Your task to perform on an android device: open sync settings in chrome Image 0: 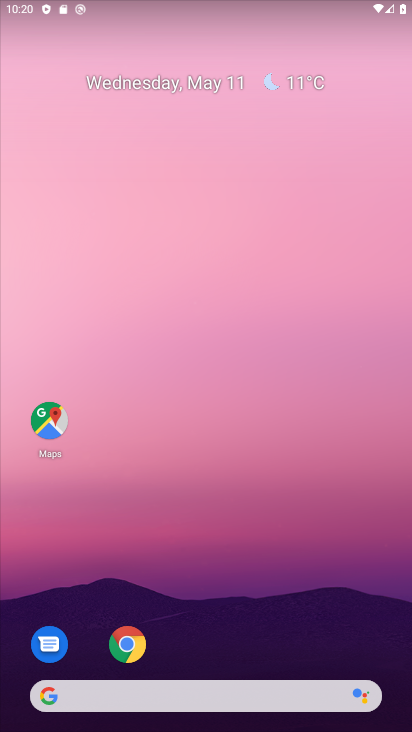
Step 0: click (126, 649)
Your task to perform on an android device: open sync settings in chrome Image 1: 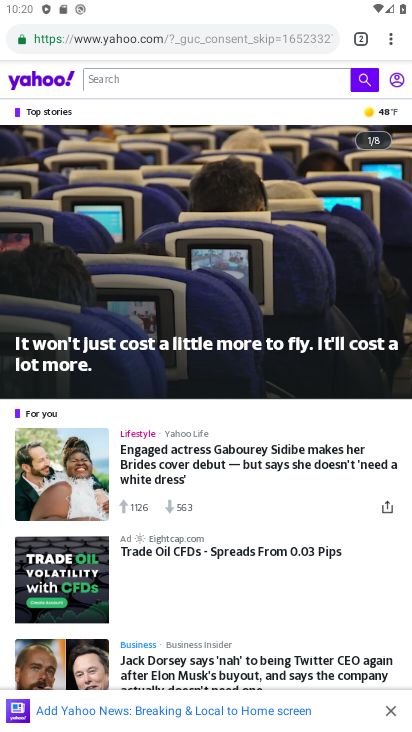
Step 1: drag from (391, 40) to (243, 475)
Your task to perform on an android device: open sync settings in chrome Image 2: 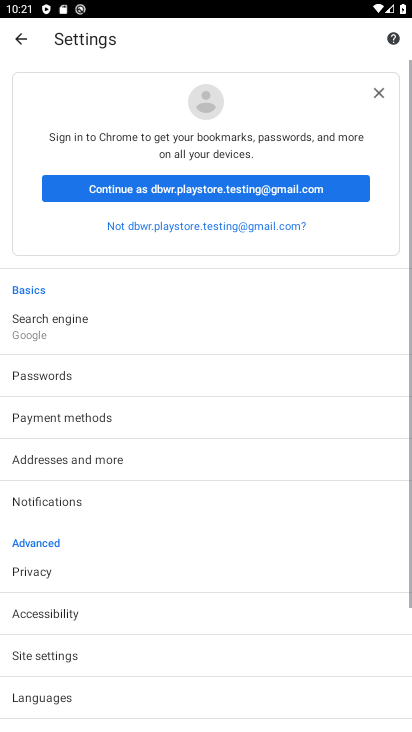
Step 2: click (147, 183)
Your task to perform on an android device: open sync settings in chrome Image 3: 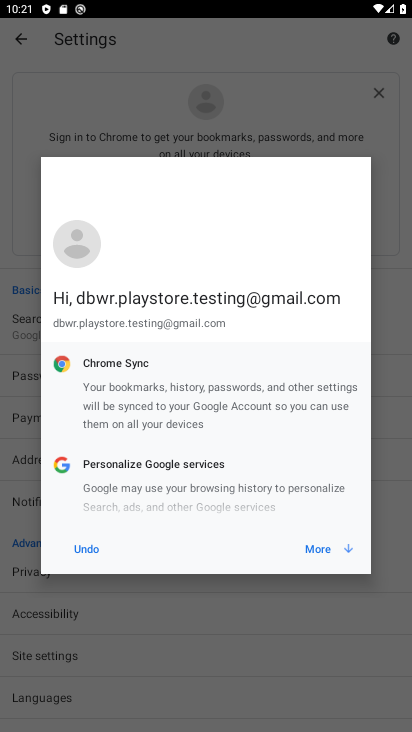
Step 3: click (325, 547)
Your task to perform on an android device: open sync settings in chrome Image 4: 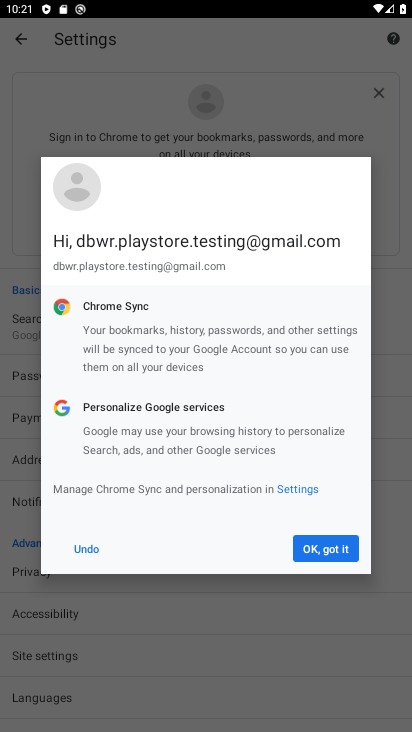
Step 4: click (325, 547)
Your task to perform on an android device: open sync settings in chrome Image 5: 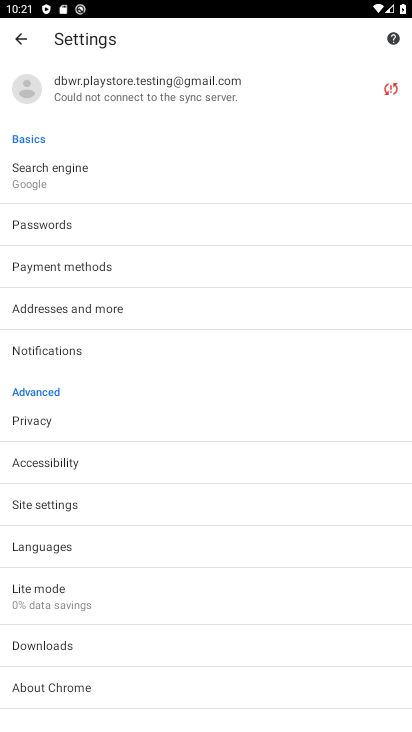
Step 5: click (93, 93)
Your task to perform on an android device: open sync settings in chrome Image 6: 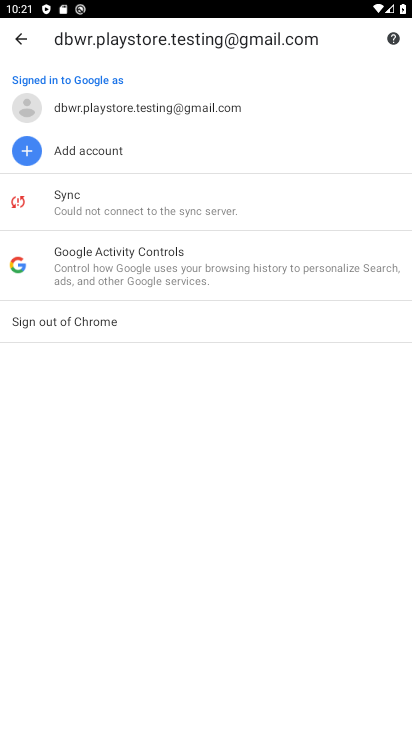
Step 6: click (90, 203)
Your task to perform on an android device: open sync settings in chrome Image 7: 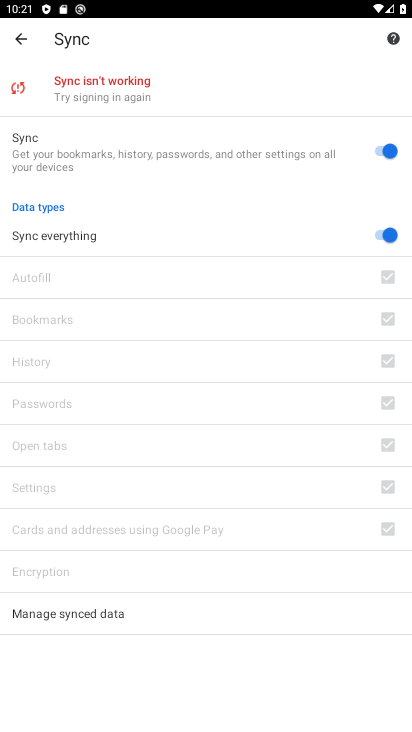
Step 7: task complete